Your task to perform on an android device: turn pop-ups on in chrome Image 0: 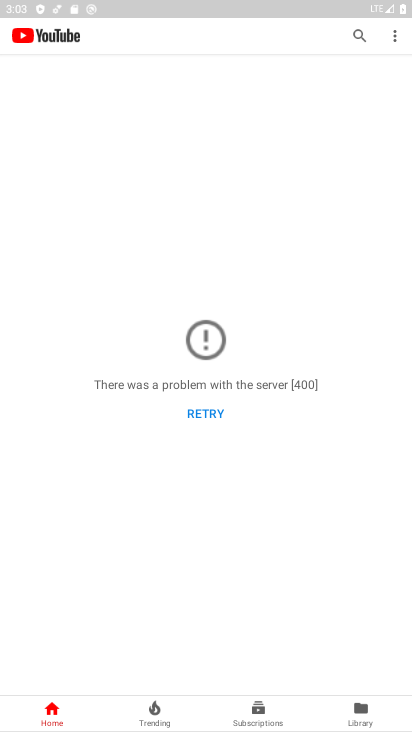
Step 0: press home button
Your task to perform on an android device: turn pop-ups on in chrome Image 1: 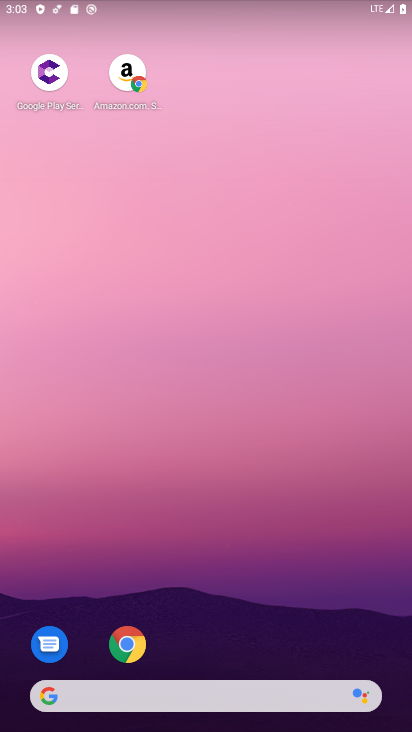
Step 1: drag from (259, 498) to (210, 167)
Your task to perform on an android device: turn pop-ups on in chrome Image 2: 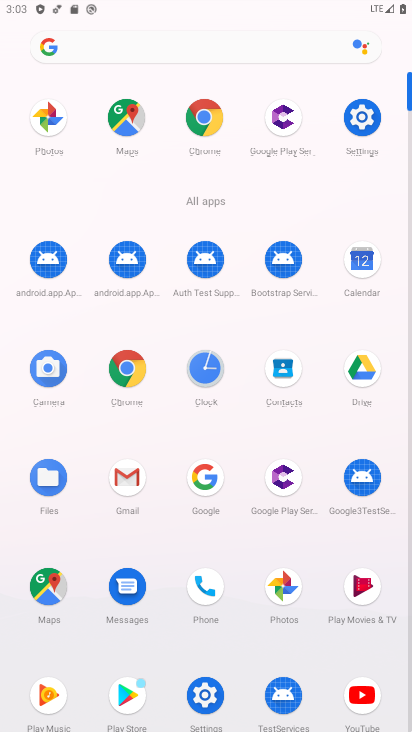
Step 2: click (182, 132)
Your task to perform on an android device: turn pop-ups on in chrome Image 3: 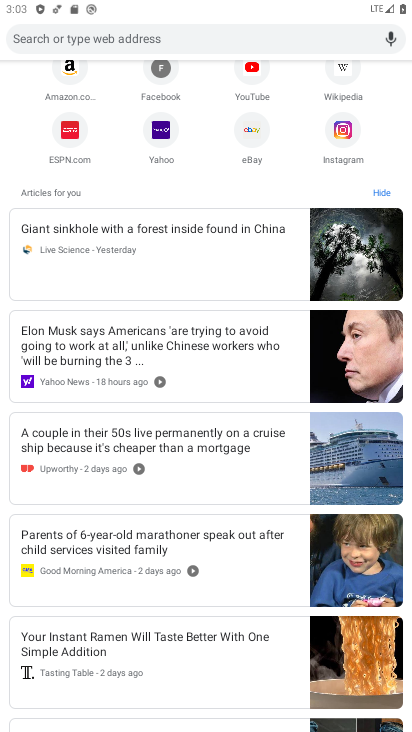
Step 3: drag from (288, 195) to (281, 596)
Your task to perform on an android device: turn pop-ups on in chrome Image 4: 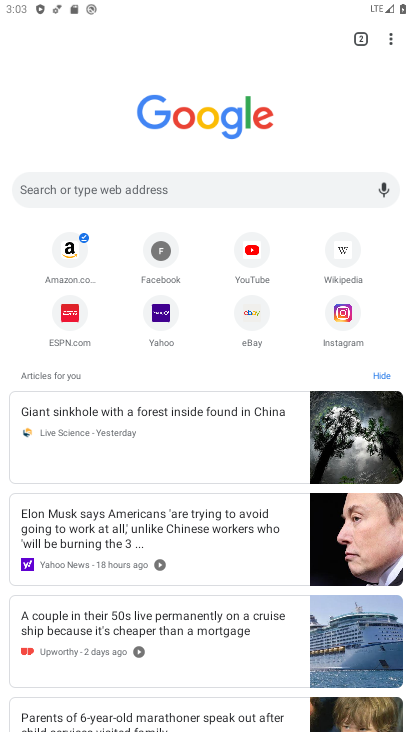
Step 4: drag from (397, 36) to (246, 344)
Your task to perform on an android device: turn pop-ups on in chrome Image 5: 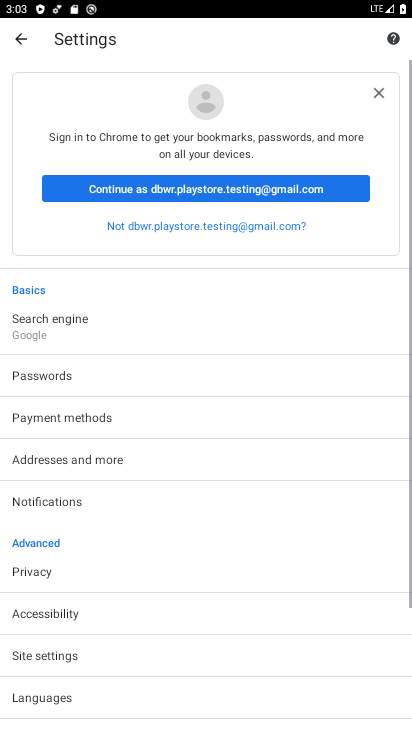
Step 5: drag from (193, 683) to (199, 346)
Your task to perform on an android device: turn pop-ups on in chrome Image 6: 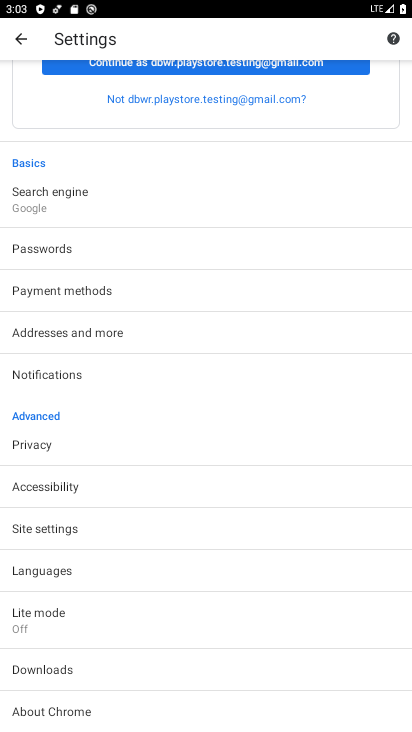
Step 6: click (16, 526)
Your task to perform on an android device: turn pop-ups on in chrome Image 7: 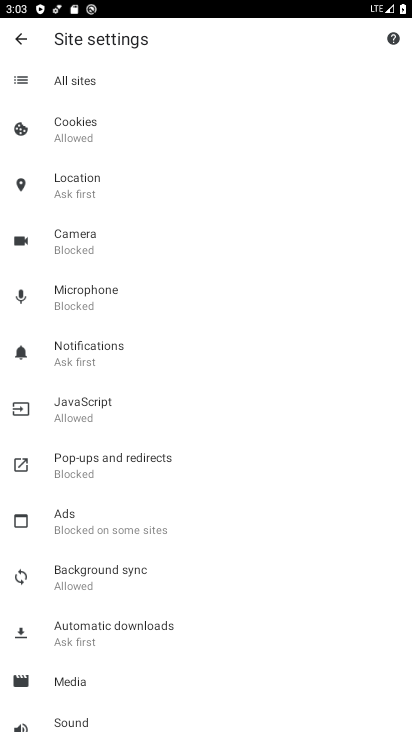
Step 7: click (107, 465)
Your task to perform on an android device: turn pop-ups on in chrome Image 8: 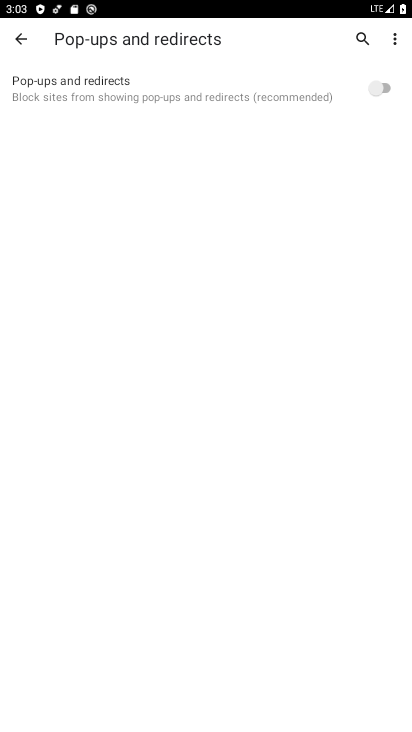
Step 8: click (381, 92)
Your task to perform on an android device: turn pop-ups on in chrome Image 9: 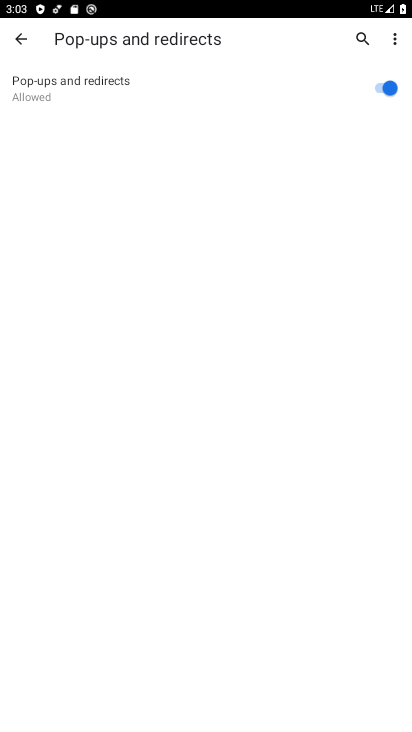
Step 9: task complete